Your task to perform on an android device: add a contact Image 0: 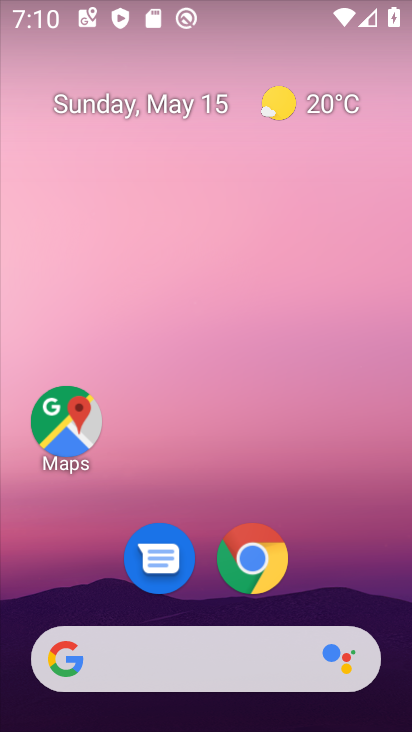
Step 0: drag from (319, 487) to (158, 38)
Your task to perform on an android device: add a contact Image 1: 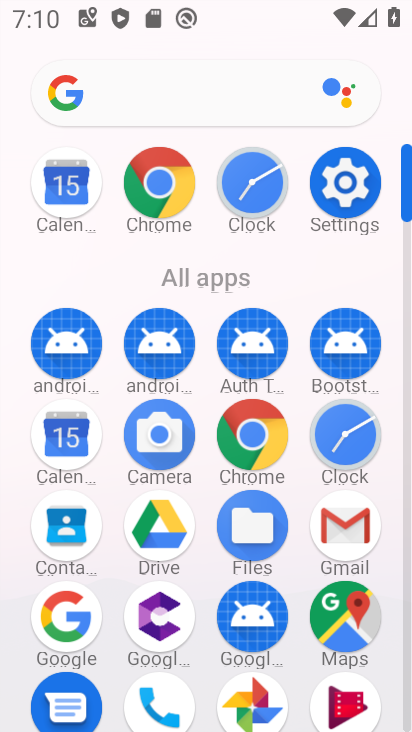
Step 1: click (69, 534)
Your task to perform on an android device: add a contact Image 2: 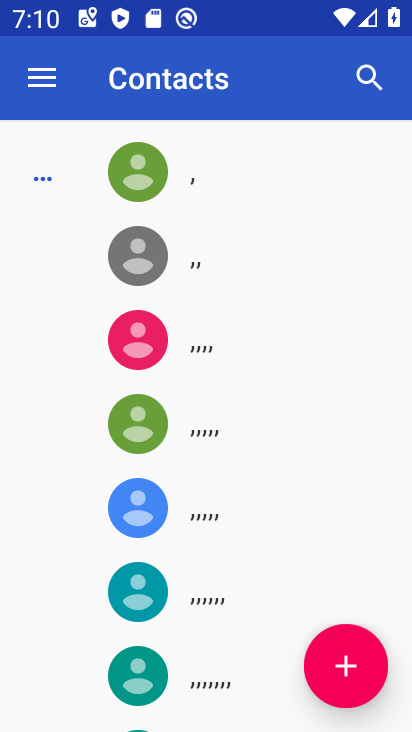
Step 2: click (349, 665)
Your task to perform on an android device: add a contact Image 3: 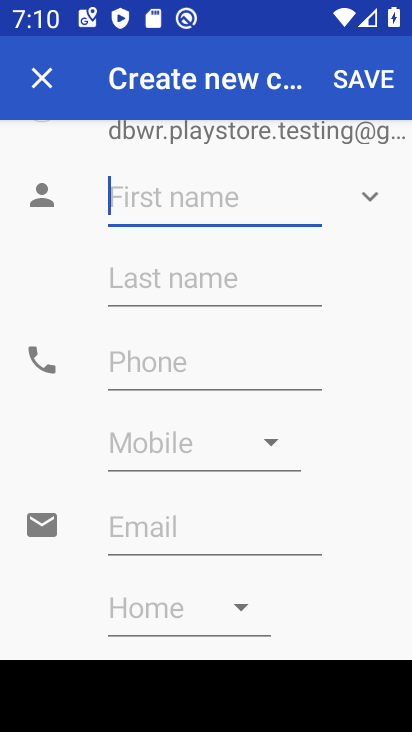
Step 3: type "WQQerrh"
Your task to perform on an android device: add a contact Image 4: 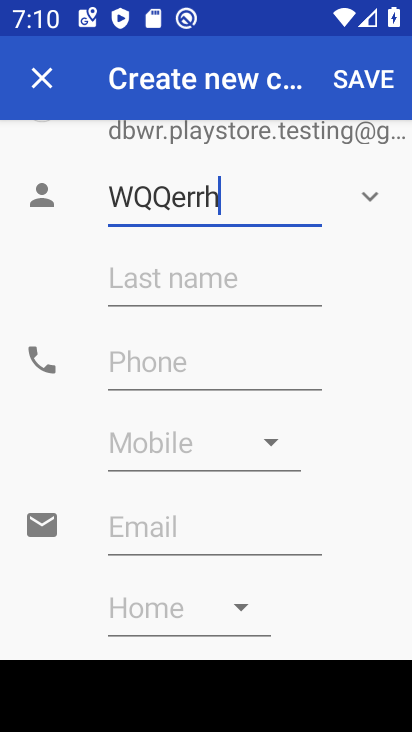
Step 4: click (173, 359)
Your task to perform on an android device: add a contact Image 5: 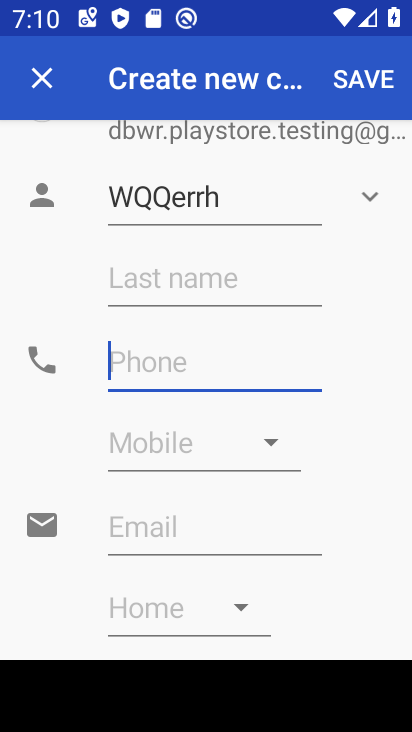
Step 5: type "097897546777685"
Your task to perform on an android device: add a contact Image 6: 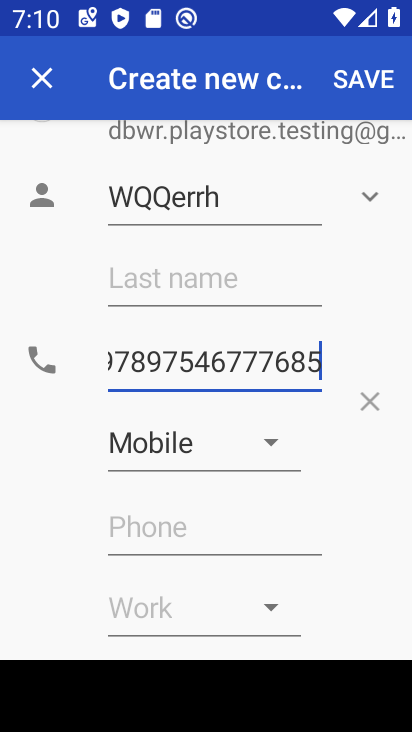
Step 6: click (372, 77)
Your task to perform on an android device: add a contact Image 7: 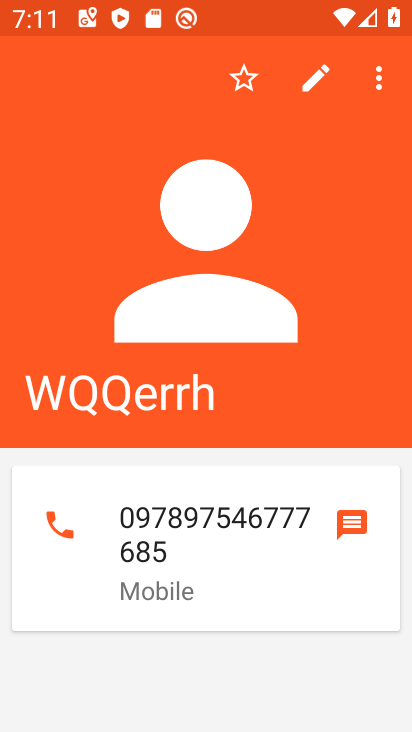
Step 7: task complete